Your task to perform on an android device: change notification settings in the gmail app Image 0: 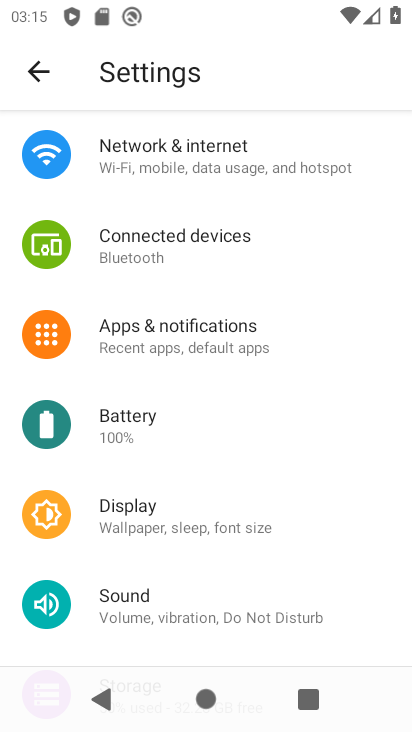
Step 0: press home button
Your task to perform on an android device: change notification settings in the gmail app Image 1: 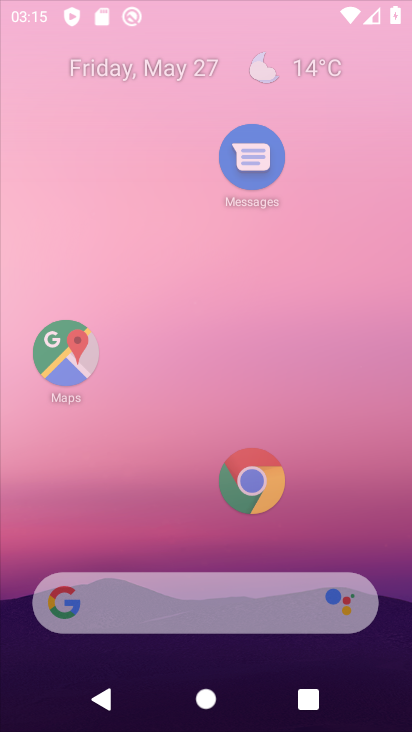
Step 1: drag from (223, 569) to (310, 6)
Your task to perform on an android device: change notification settings in the gmail app Image 2: 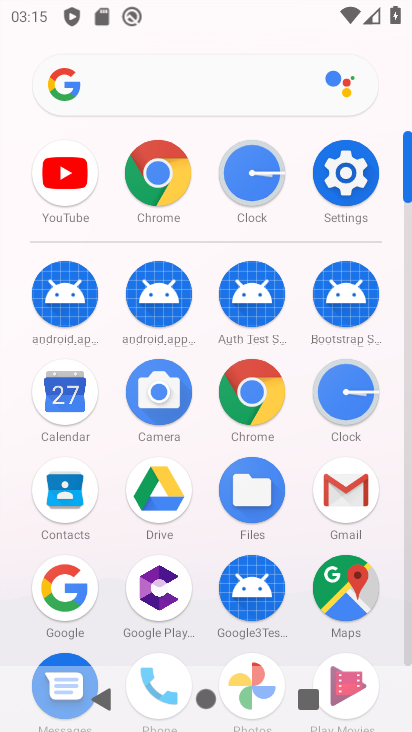
Step 2: drag from (203, 617) to (200, 187)
Your task to perform on an android device: change notification settings in the gmail app Image 3: 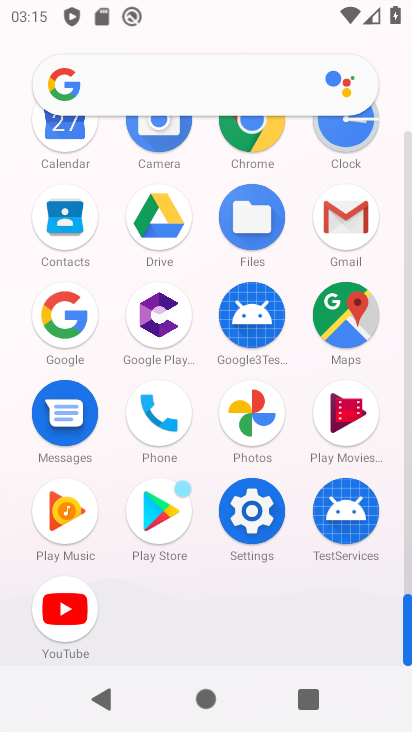
Step 3: click (341, 224)
Your task to perform on an android device: change notification settings in the gmail app Image 4: 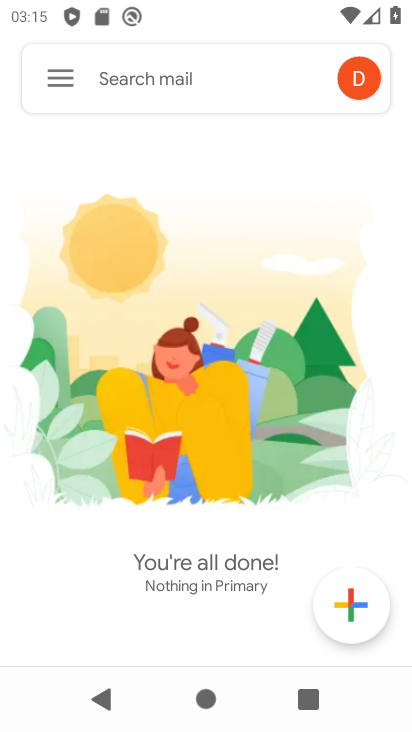
Step 4: click (54, 84)
Your task to perform on an android device: change notification settings in the gmail app Image 5: 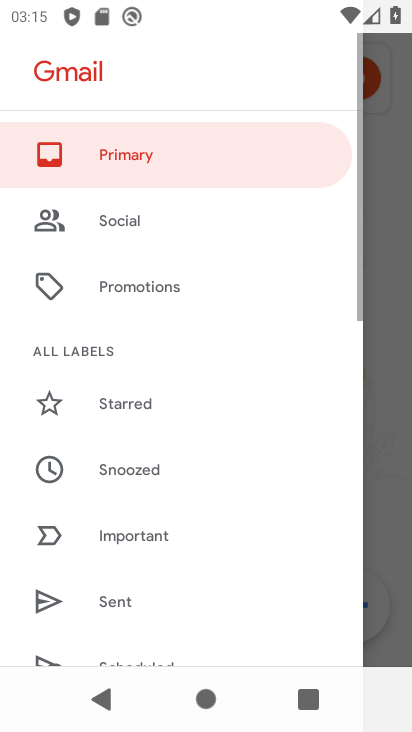
Step 5: drag from (196, 573) to (250, 119)
Your task to perform on an android device: change notification settings in the gmail app Image 6: 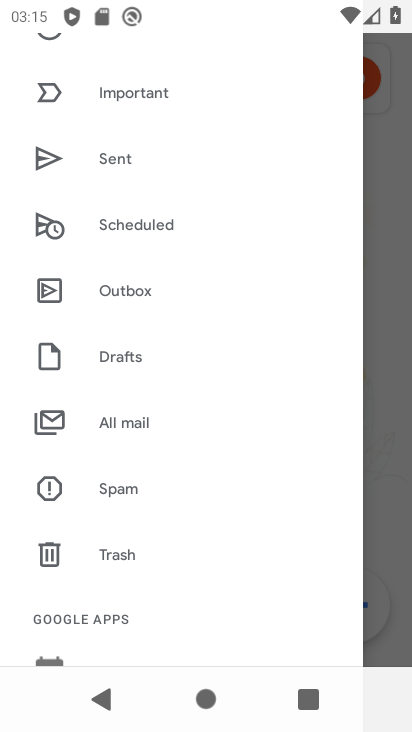
Step 6: drag from (113, 583) to (191, 170)
Your task to perform on an android device: change notification settings in the gmail app Image 7: 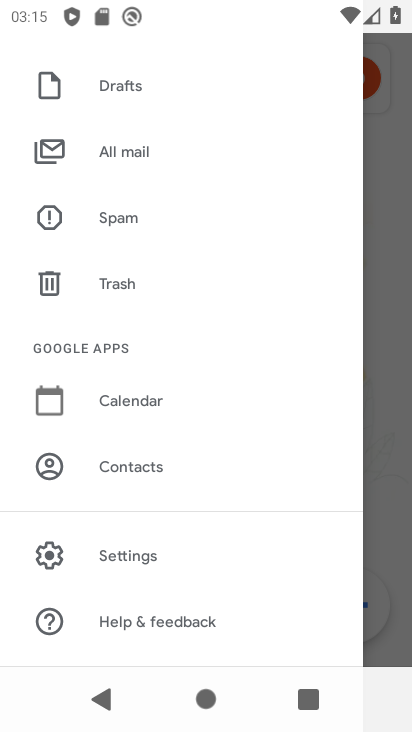
Step 7: click (111, 566)
Your task to perform on an android device: change notification settings in the gmail app Image 8: 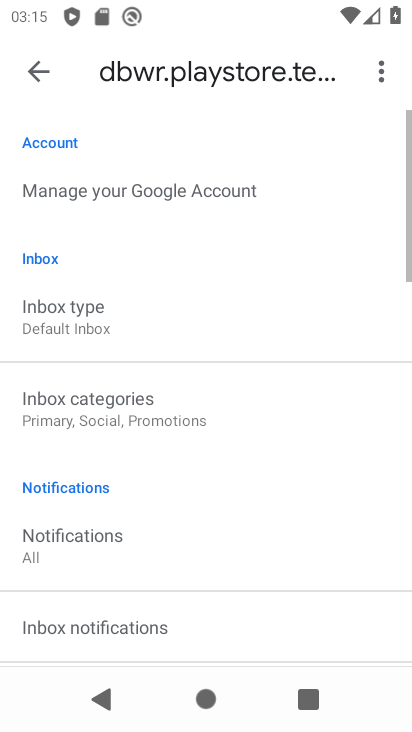
Step 8: drag from (144, 554) to (226, 237)
Your task to perform on an android device: change notification settings in the gmail app Image 9: 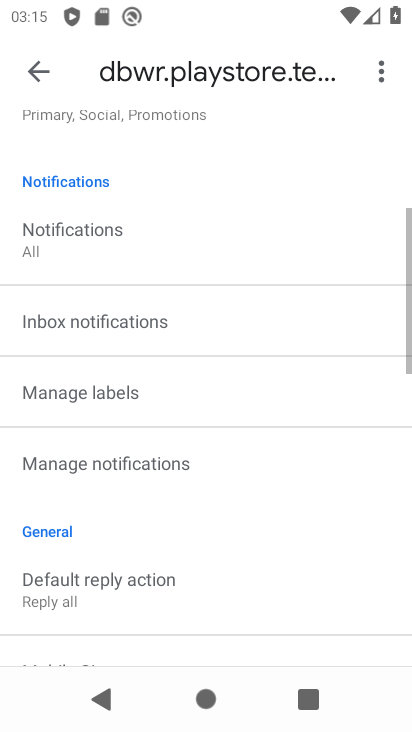
Step 9: click (135, 468)
Your task to perform on an android device: change notification settings in the gmail app Image 10: 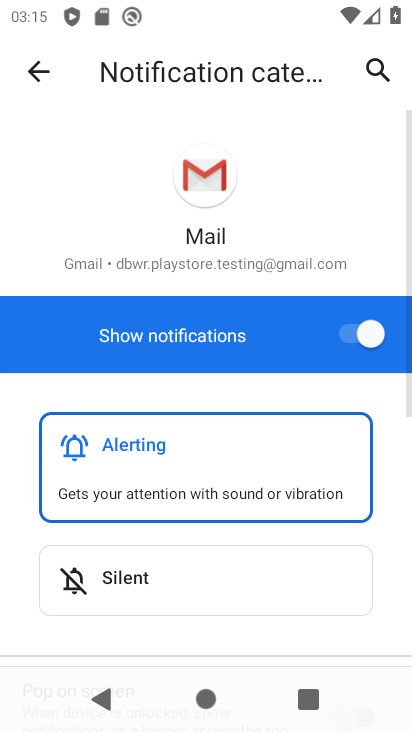
Step 10: click (351, 338)
Your task to perform on an android device: change notification settings in the gmail app Image 11: 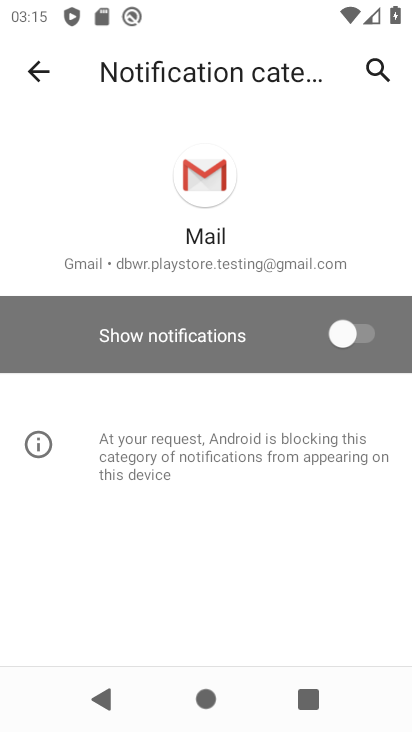
Step 11: task complete